Your task to perform on an android device: How much does a 3 bedroom apartment rent for in Austin? Image 0: 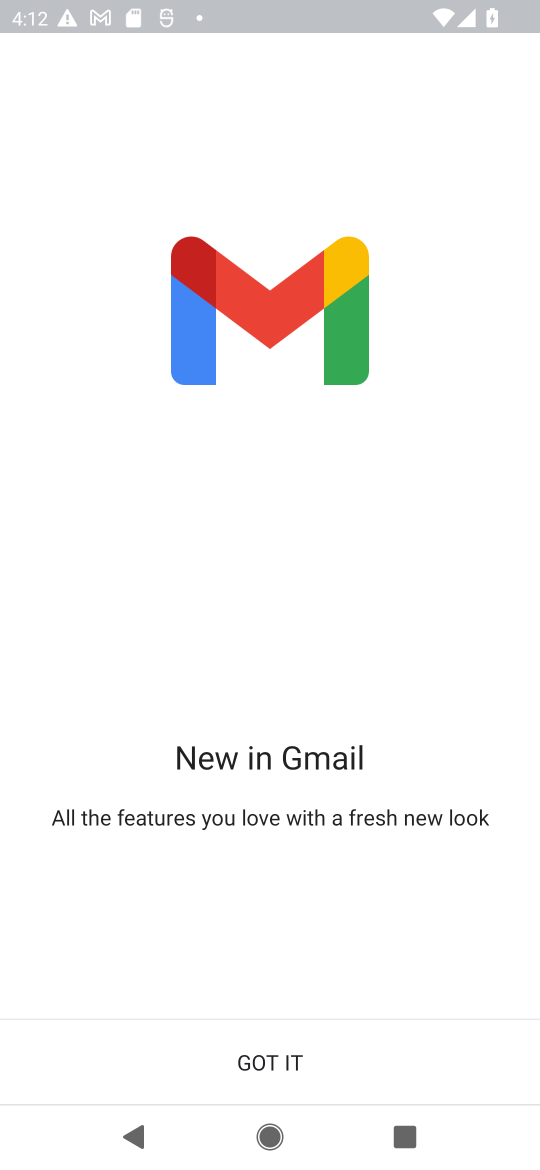
Step 0: press home button
Your task to perform on an android device: How much does a 3 bedroom apartment rent for in Austin? Image 1: 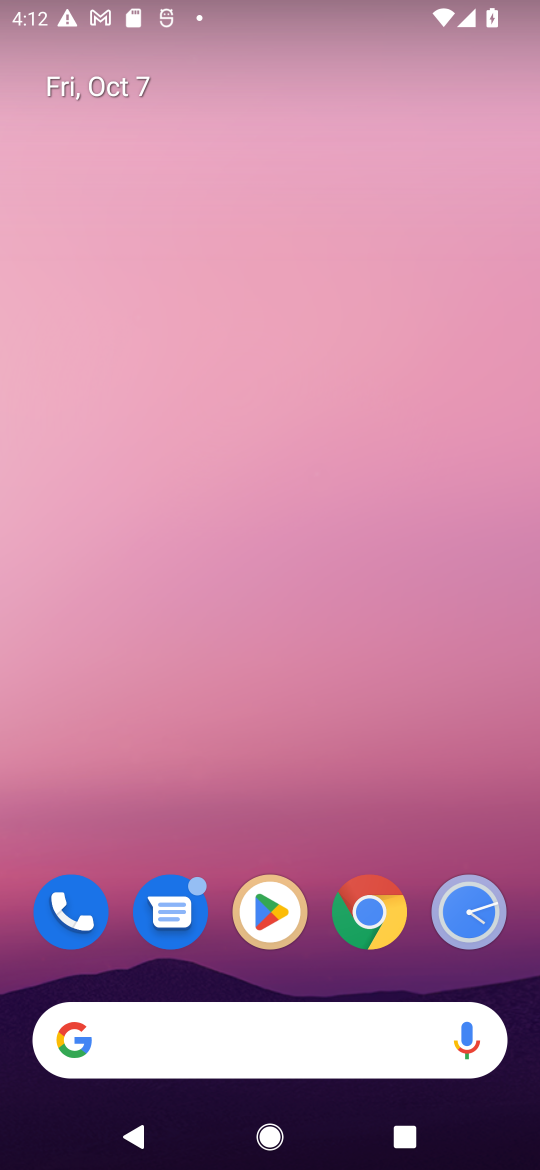
Step 1: drag from (174, 941) to (180, 201)
Your task to perform on an android device: How much does a 3 bedroom apartment rent for in Austin? Image 2: 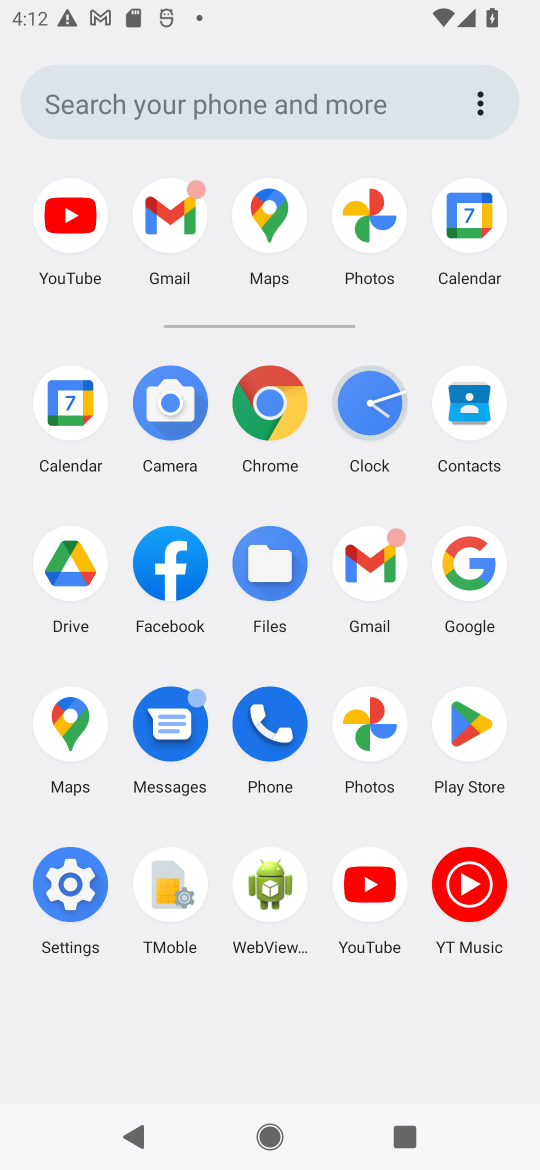
Step 2: click (469, 550)
Your task to perform on an android device: How much does a 3 bedroom apartment rent for in Austin? Image 3: 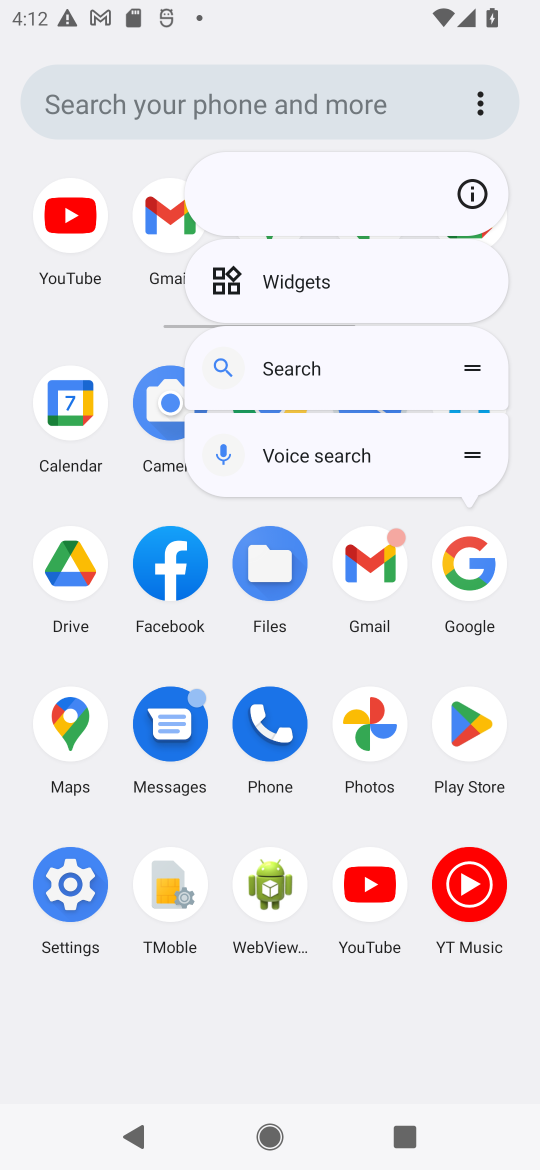
Step 3: click (469, 550)
Your task to perform on an android device: How much does a 3 bedroom apartment rent for in Austin? Image 4: 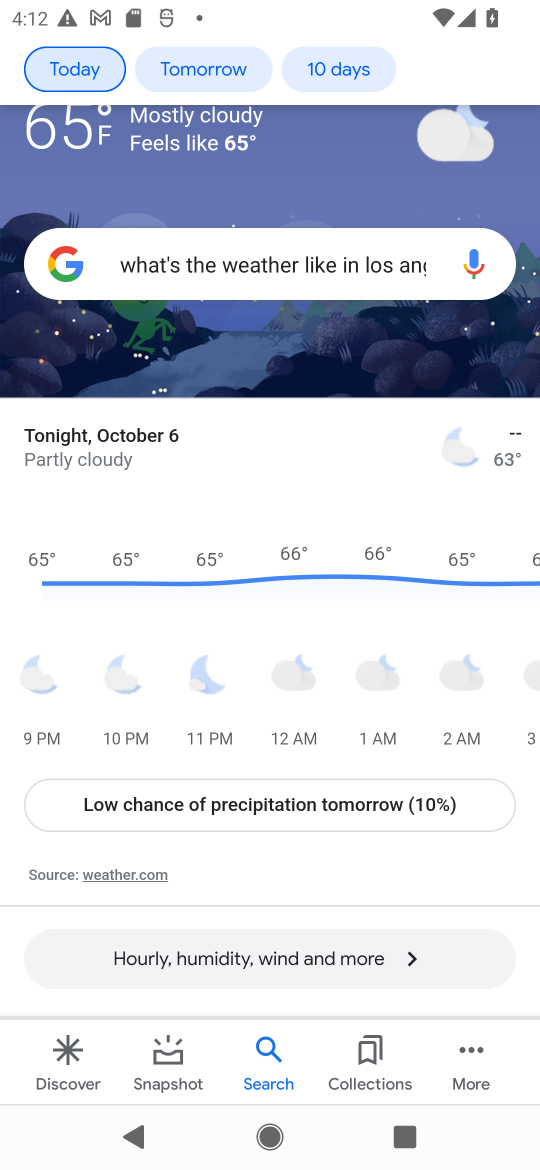
Step 4: drag from (269, 221) to (244, 623)
Your task to perform on an android device: How much does a 3 bedroom apartment rent for in Austin? Image 5: 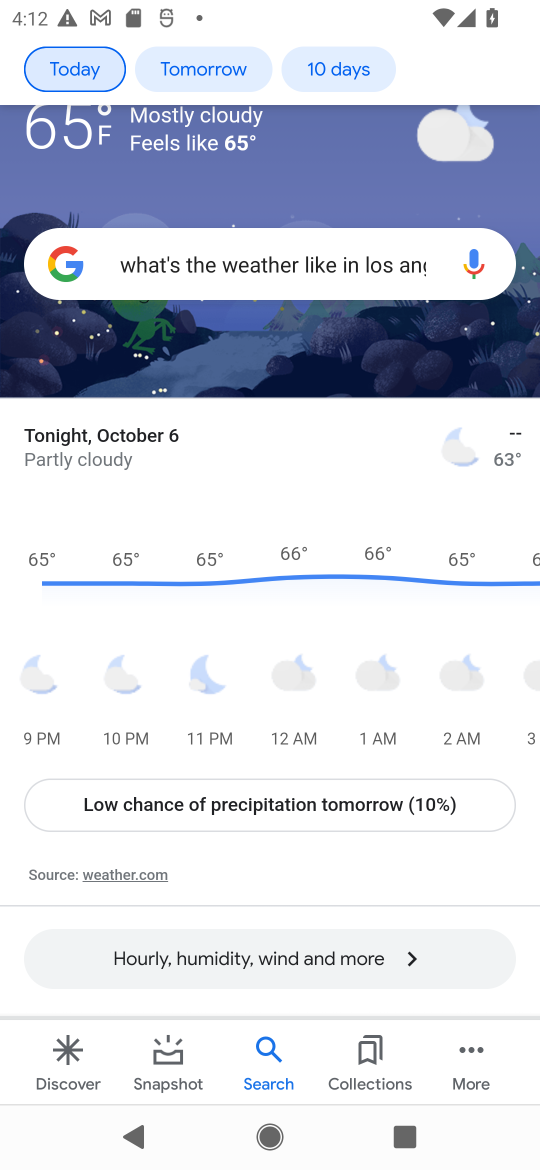
Step 5: click (323, 266)
Your task to perform on an android device: How much does a 3 bedroom apartment rent for in Austin? Image 6: 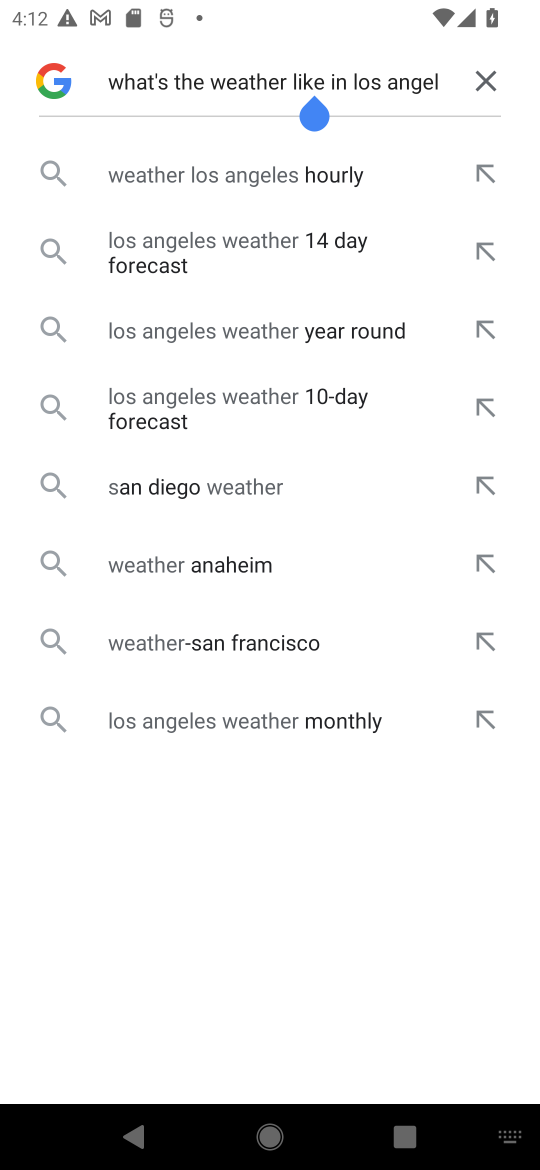
Step 6: click (483, 73)
Your task to perform on an android device: How much does a 3 bedroom apartment rent for in Austin? Image 7: 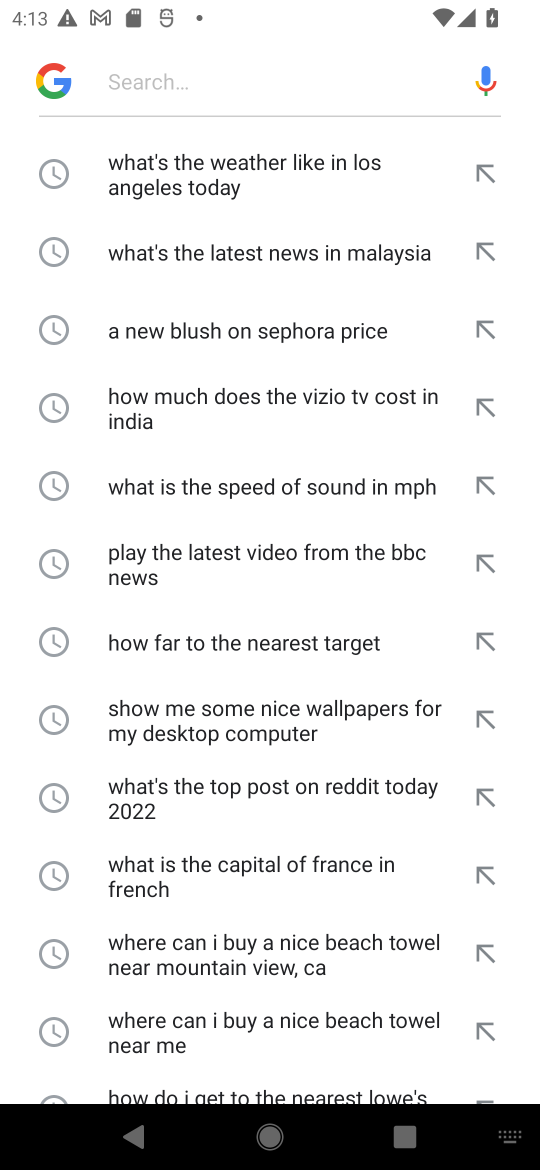
Step 7: click (204, 72)
Your task to perform on an android device: How much does a 3 bedroom apartment rent for in Austin? Image 8: 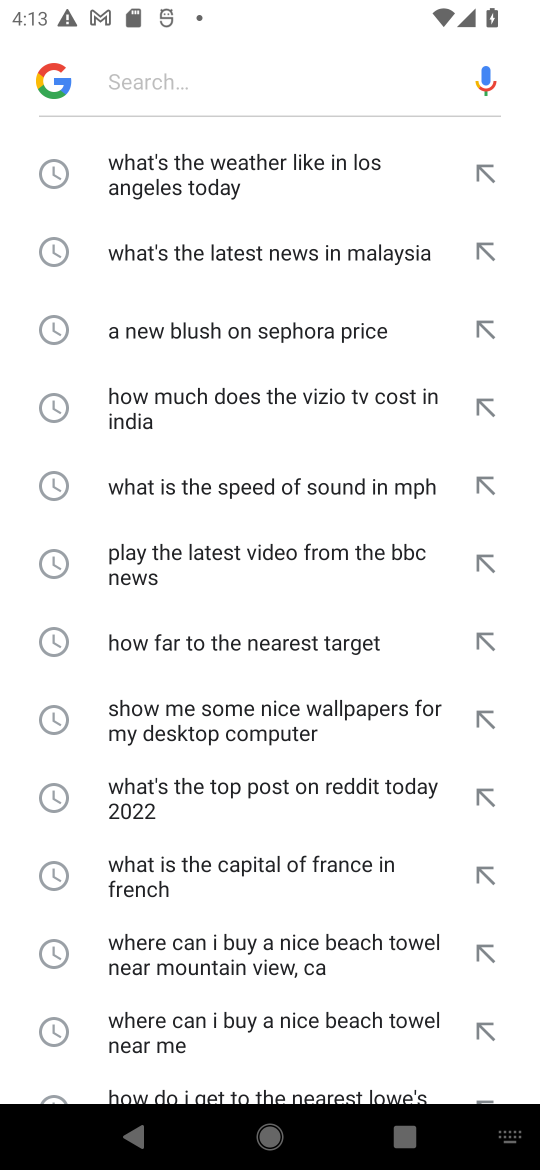
Step 8: type "How much does a 3 bedroom apartment rent for in Austin? "
Your task to perform on an android device: How much does a 3 bedroom apartment rent for in Austin? Image 9: 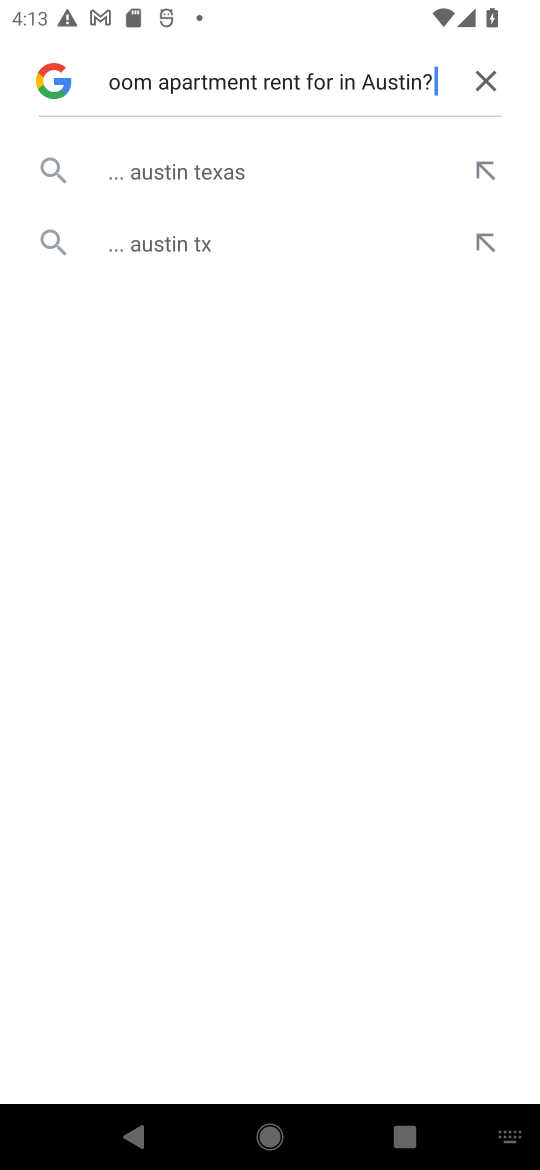
Step 9: click (209, 193)
Your task to perform on an android device: How much does a 3 bedroom apartment rent for in Austin? Image 10: 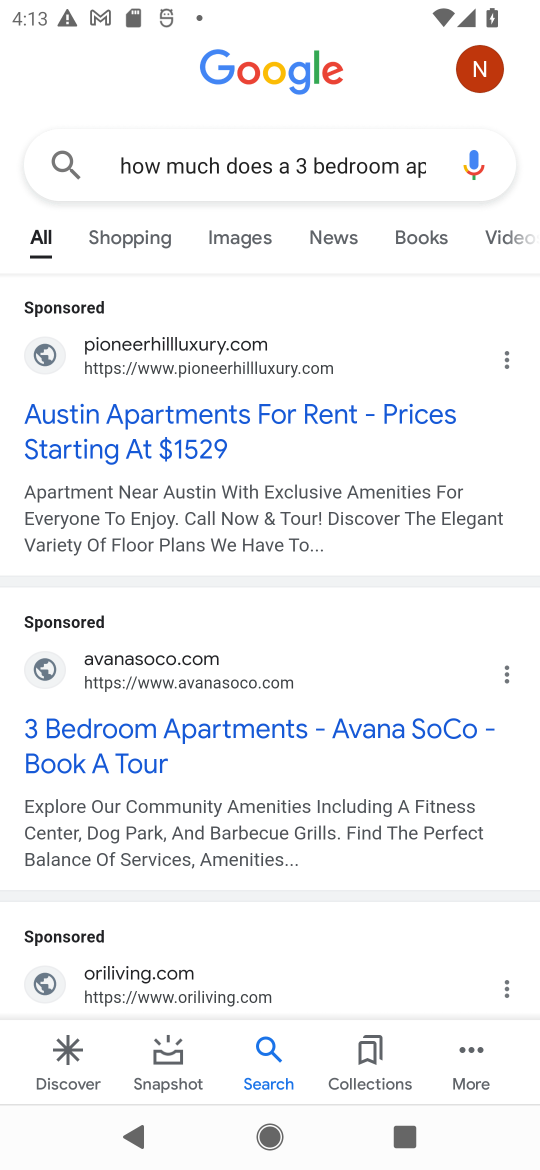
Step 10: click (152, 440)
Your task to perform on an android device: How much does a 3 bedroom apartment rent for in Austin? Image 11: 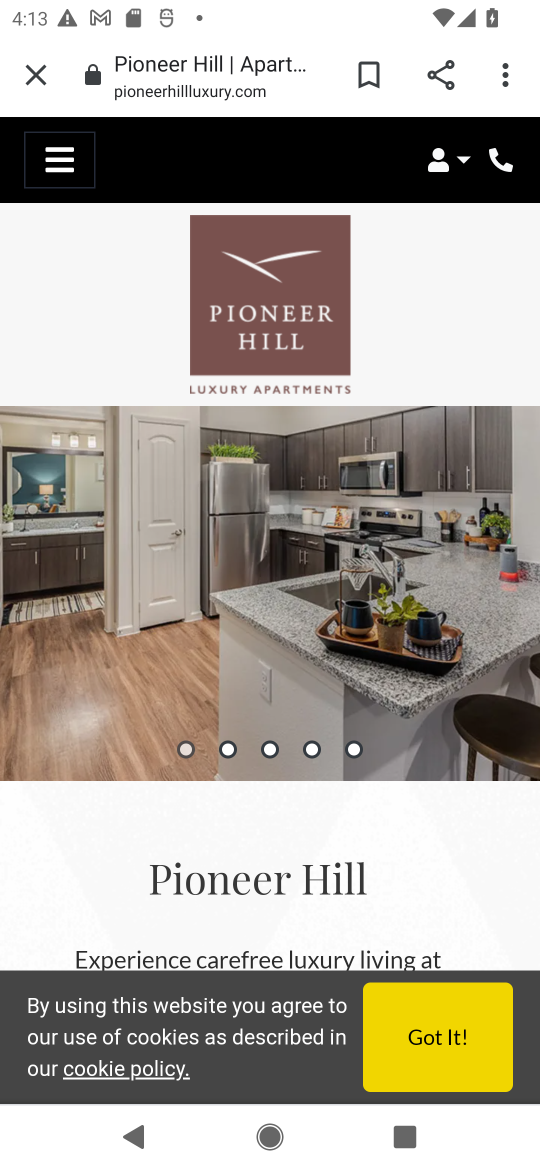
Step 11: task complete